Your task to perform on an android device: Do I have any events today? Image 0: 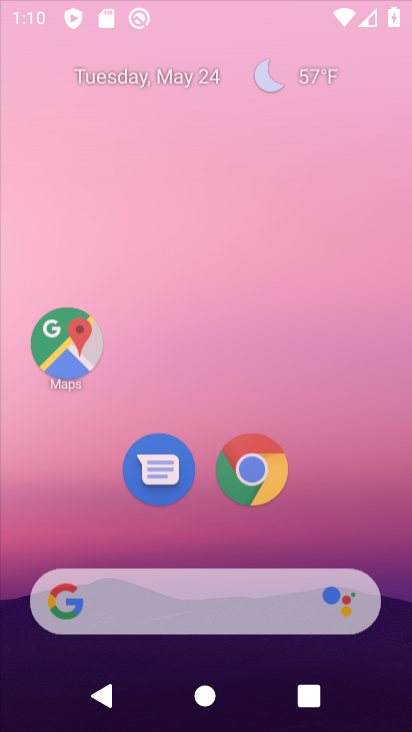
Step 0: drag from (248, 584) to (191, 51)
Your task to perform on an android device: Do I have any events today? Image 1: 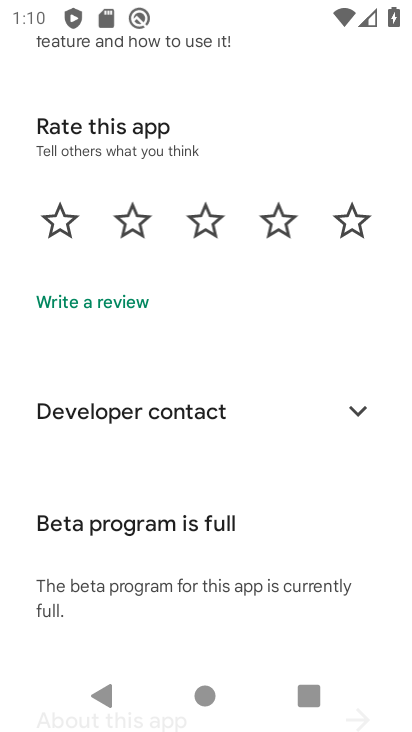
Step 1: press home button
Your task to perform on an android device: Do I have any events today? Image 2: 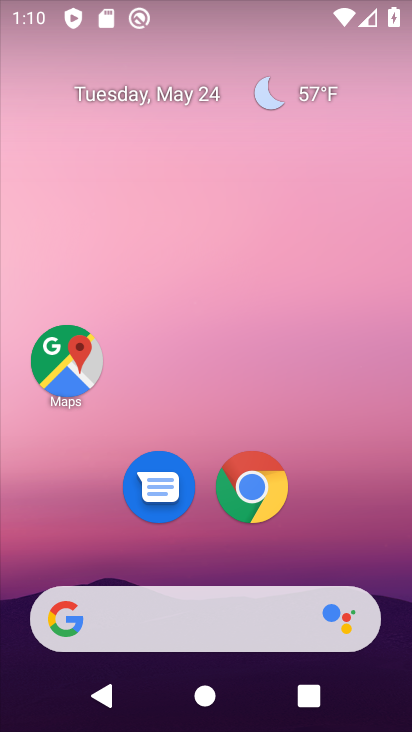
Step 2: drag from (228, 721) to (187, 104)
Your task to perform on an android device: Do I have any events today? Image 3: 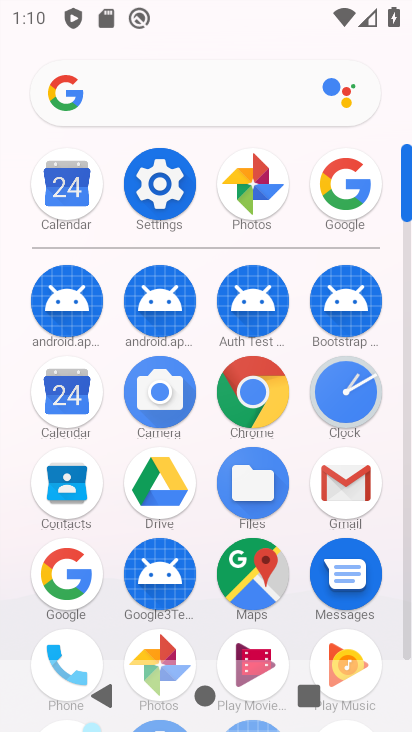
Step 3: click (69, 400)
Your task to perform on an android device: Do I have any events today? Image 4: 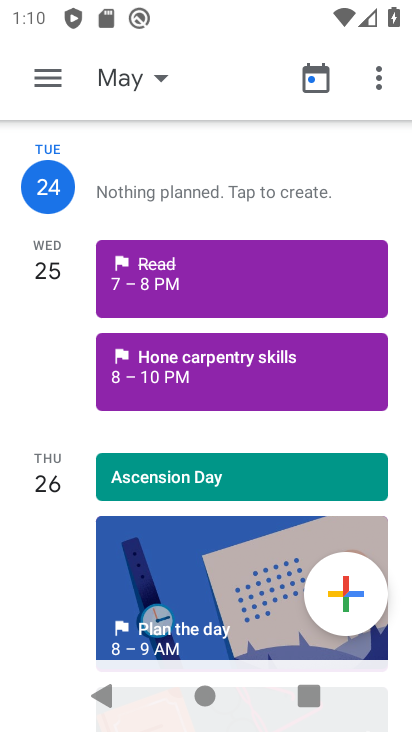
Step 4: click (164, 76)
Your task to perform on an android device: Do I have any events today? Image 5: 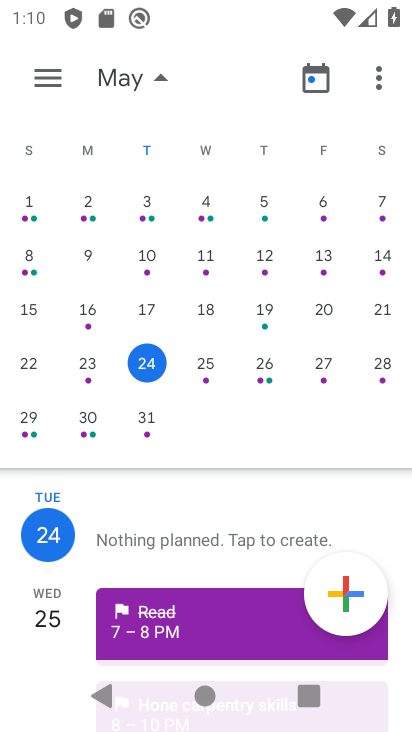
Step 5: click (153, 362)
Your task to perform on an android device: Do I have any events today? Image 6: 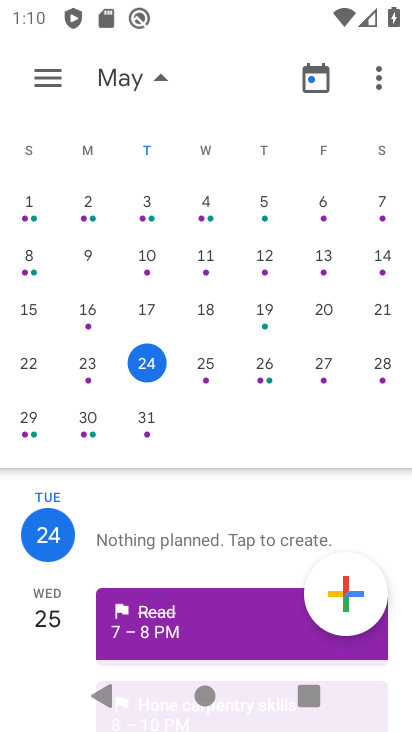
Step 6: click (151, 362)
Your task to perform on an android device: Do I have any events today? Image 7: 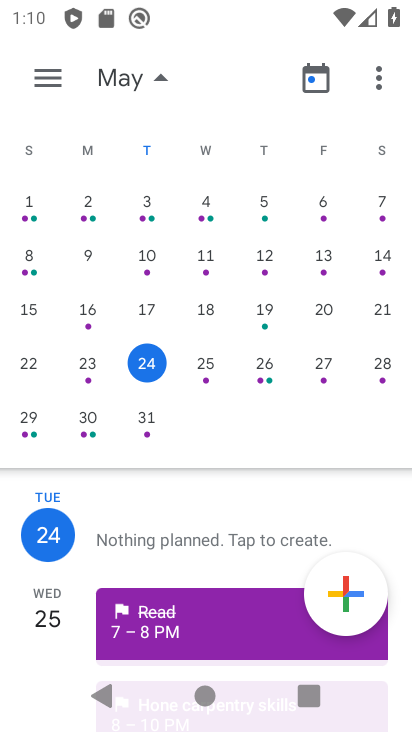
Step 7: click (159, 78)
Your task to perform on an android device: Do I have any events today? Image 8: 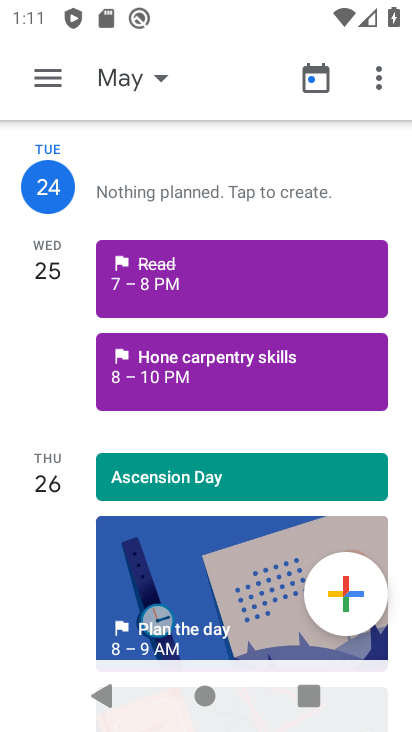
Step 8: task complete